Your task to perform on an android device: manage bookmarks in the chrome app Image 0: 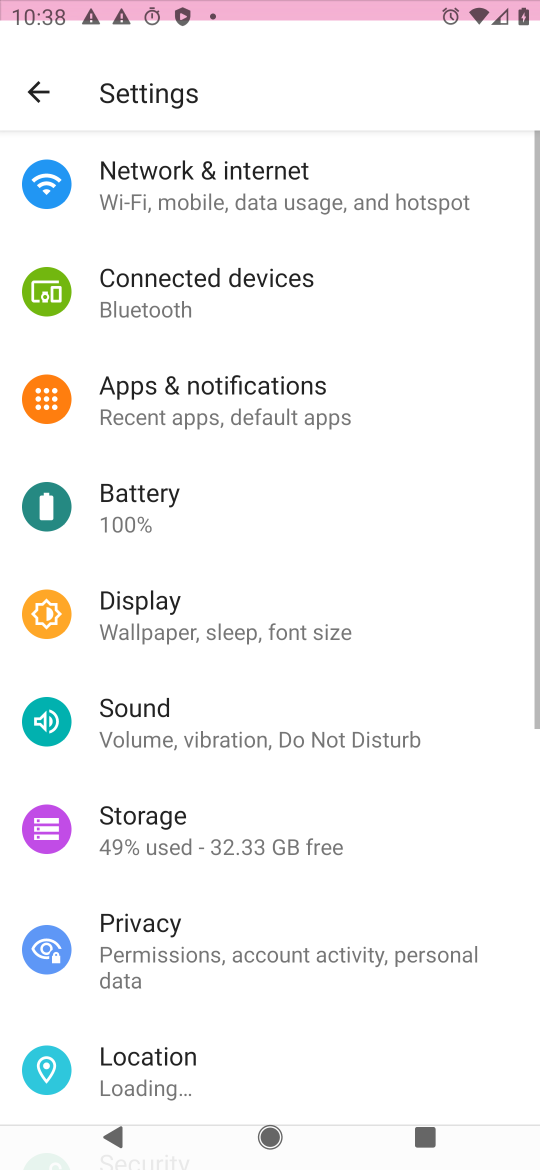
Step 0: click (269, 566)
Your task to perform on an android device: manage bookmarks in the chrome app Image 1: 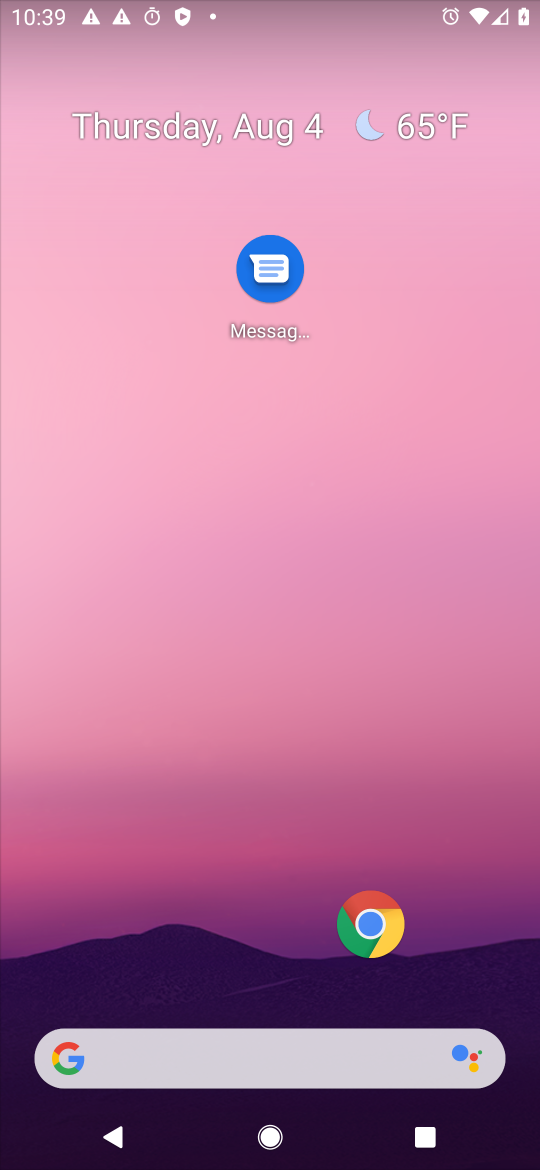
Step 1: drag from (361, 522) to (436, 202)
Your task to perform on an android device: manage bookmarks in the chrome app Image 2: 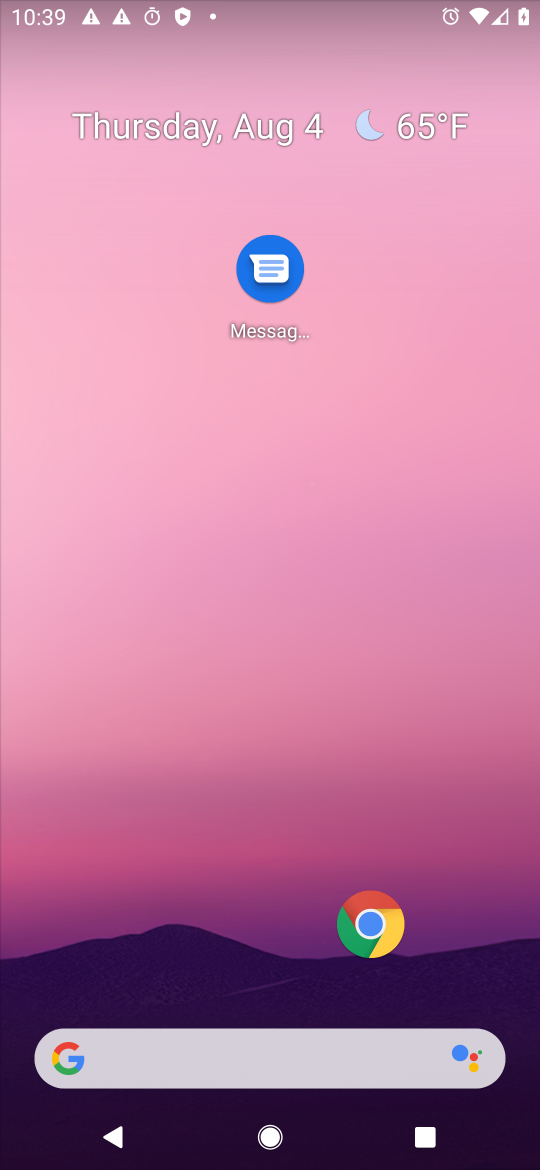
Step 2: drag from (219, 894) to (390, 85)
Your task to perform on an android device: manage bookmarks in the chrome app Image 3: 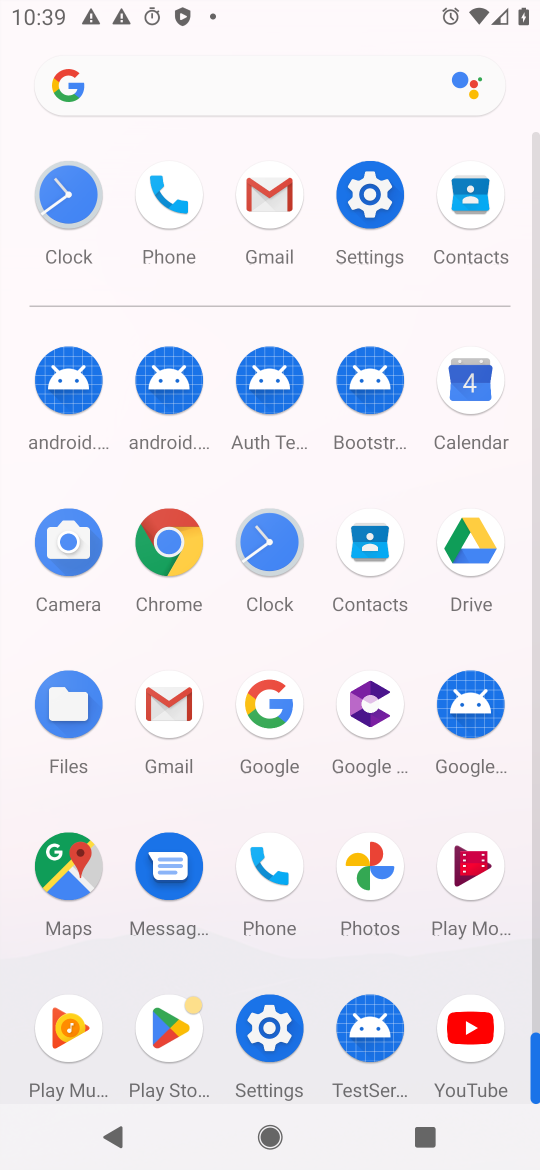
Step 3: click (150, 553)
Your task to perform on an android device: manage bookmarks in the chrome app Image 4: 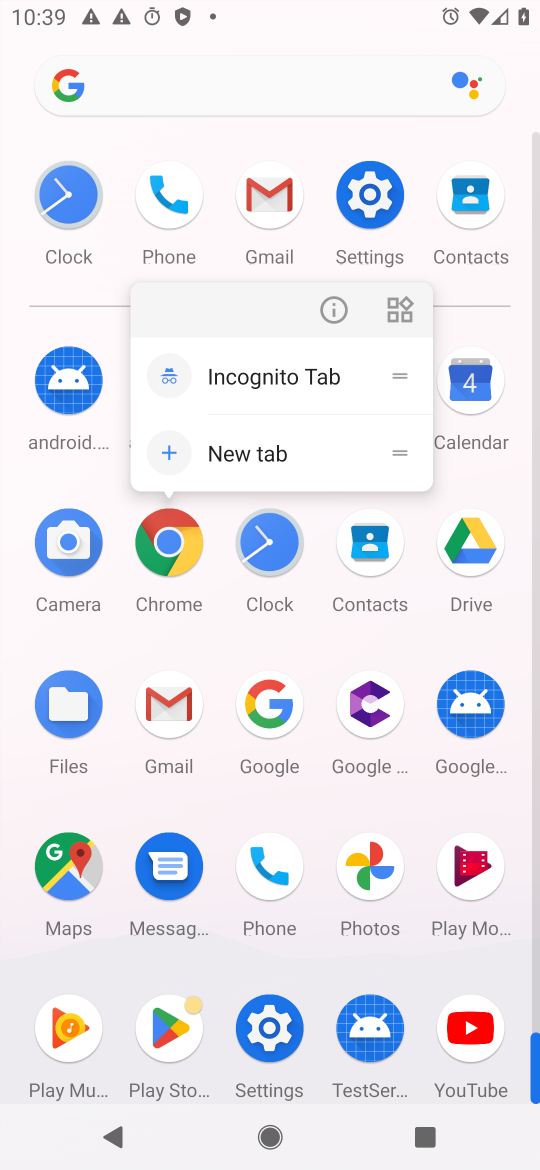
Step 4: click (334, 323)
Your task to perform on an android device: manage bookmarks in the chrome app Image 5: 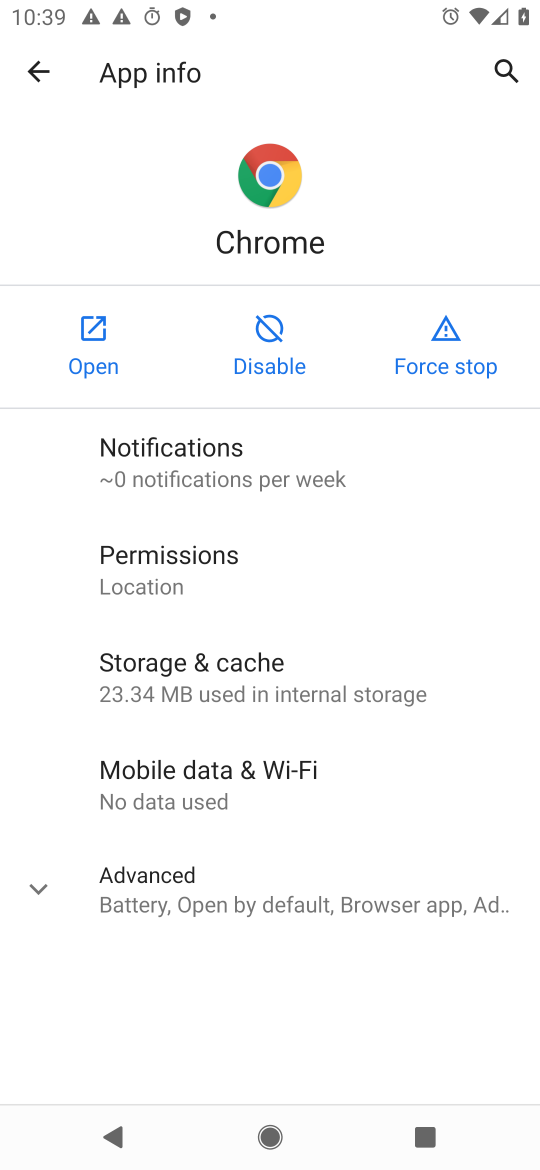
Step 5: click (106, 343)
Your task to perform on an android device: manage bookmarks in the chrome app Image 6: 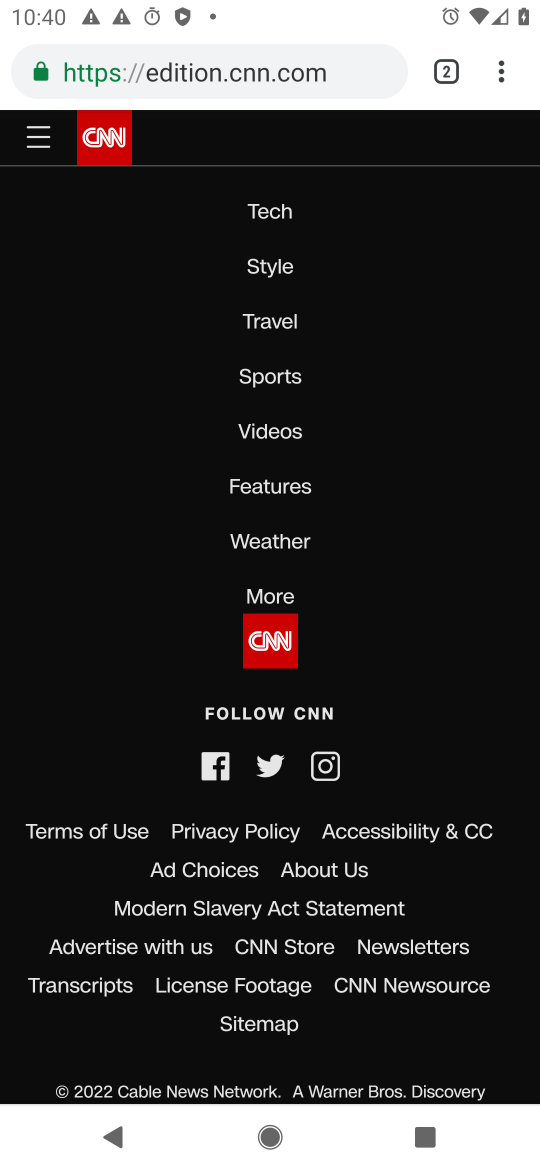
Step 6: drag from (499, 68) to (290, 277)
Your task to perform on an android device: manage bookmarks in the chrome app Image 7: 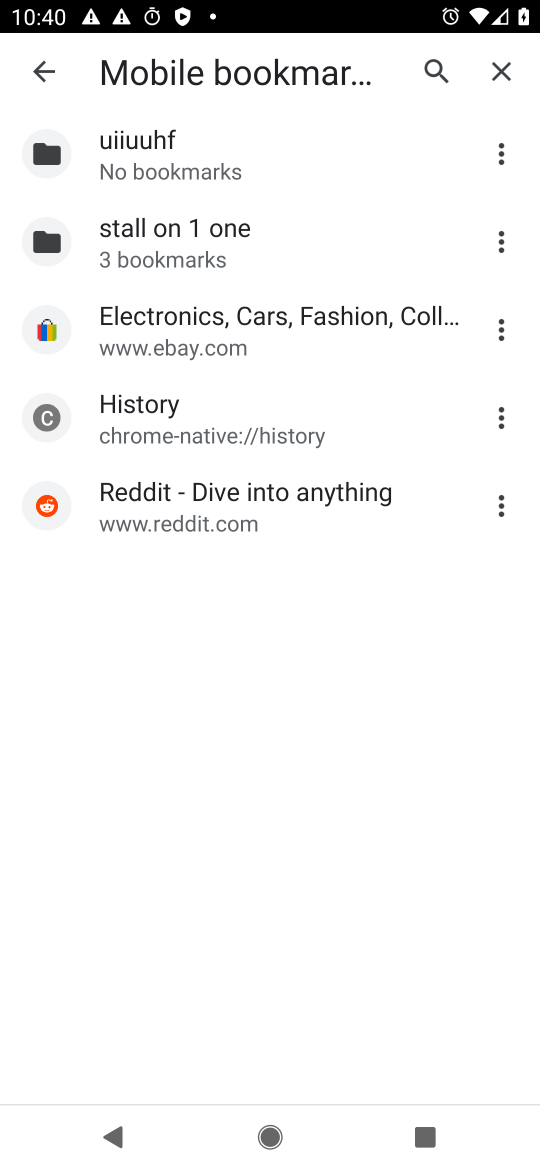
Step 7: drag from (283, 800) to (333, 480)
Your task to perform on an android device: manage bookmarks in the chrome app Image 8: 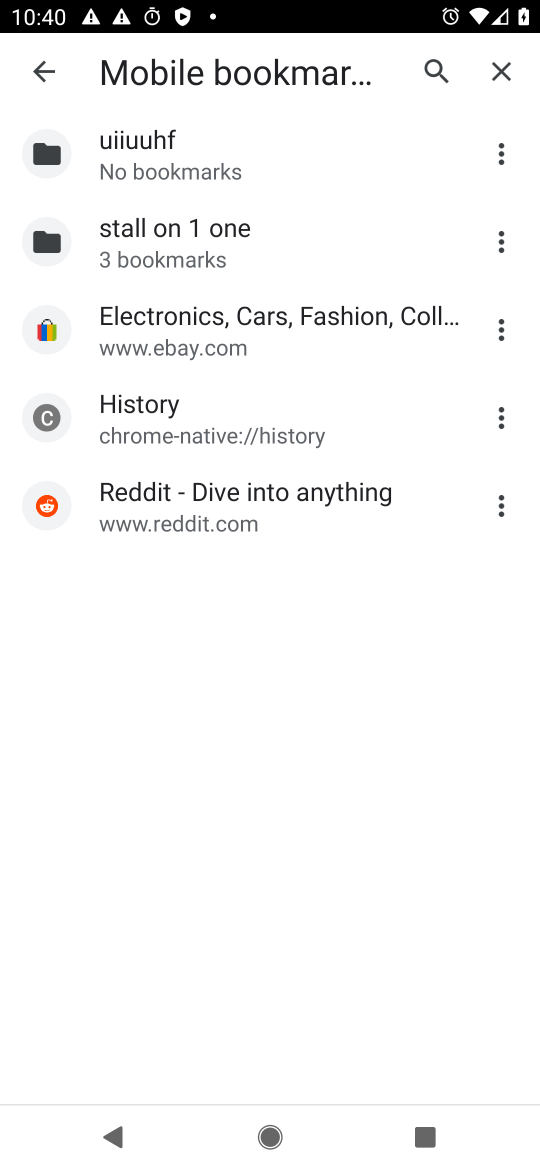
Step 8: drag from (341, 477) to (367, 300)
Your task to perform on an android device: manage bookmarks in the chrome app Image 9: 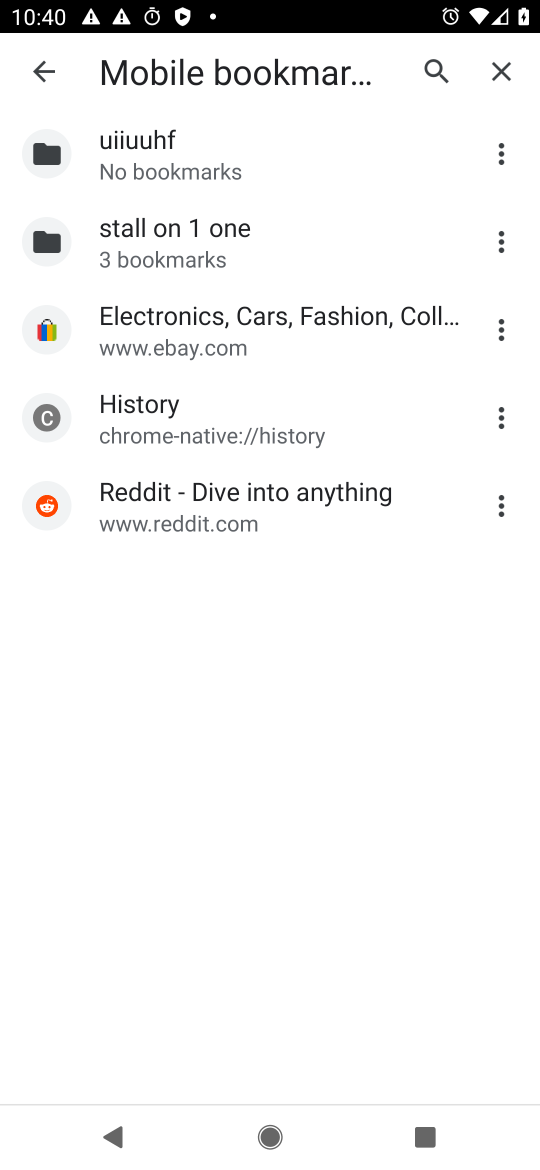
Step 9: drag from (198, 833) to (249, 461)
Your task to perform on an android device: manage bookmarks in the chrome app Image 10: 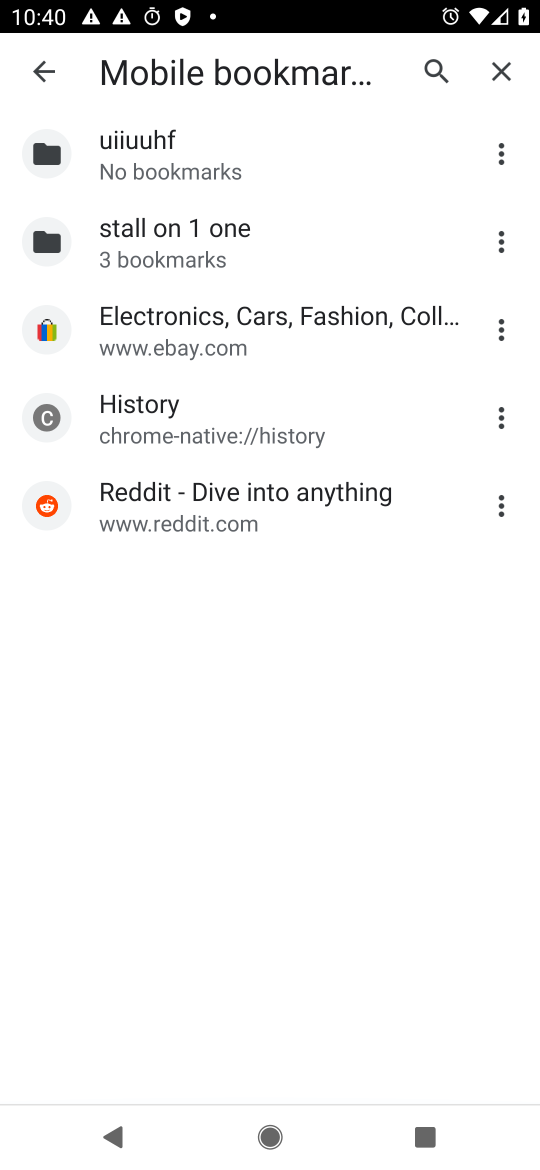
Step 10: drag from (242, 869) to (300, 384)
Your task to perform on an android device: manage bookmarks in the chrome app Image 11: 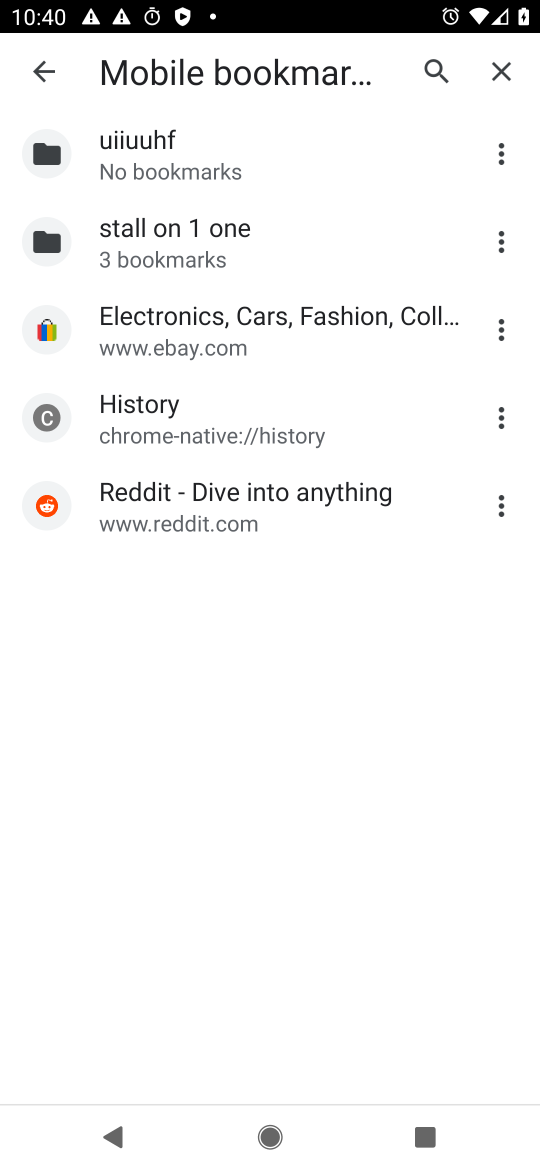
Step 11: click (295, 488)
Your task to perform on an android device: manage bookmarks in the chrome app Image 12: 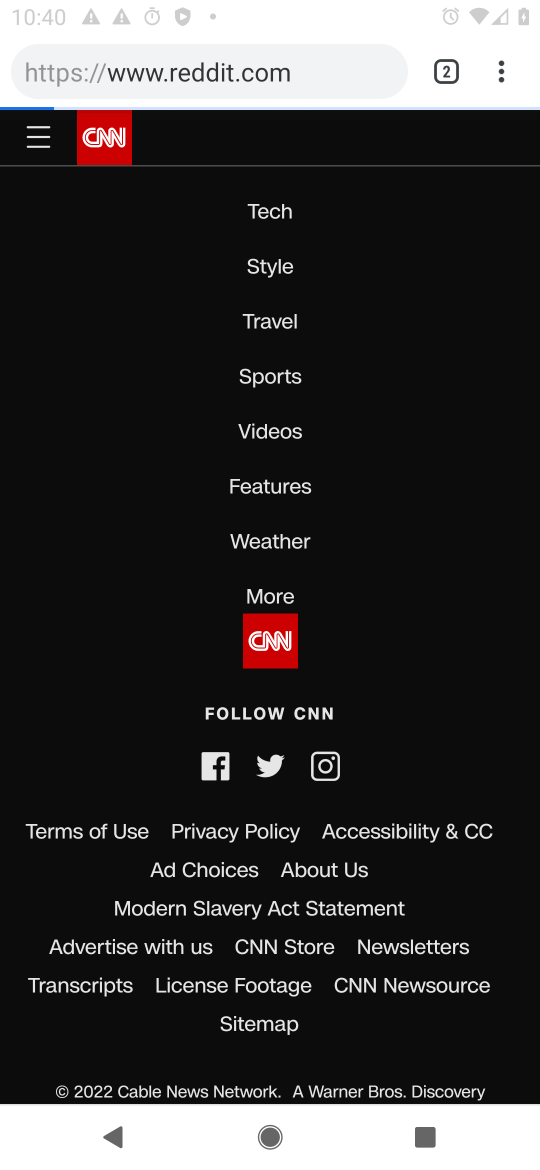
Step 12: drag from (223, 927) to (248, 543)
Your task to perform on an android device: manage bookmarks in the chrome app Image 13: 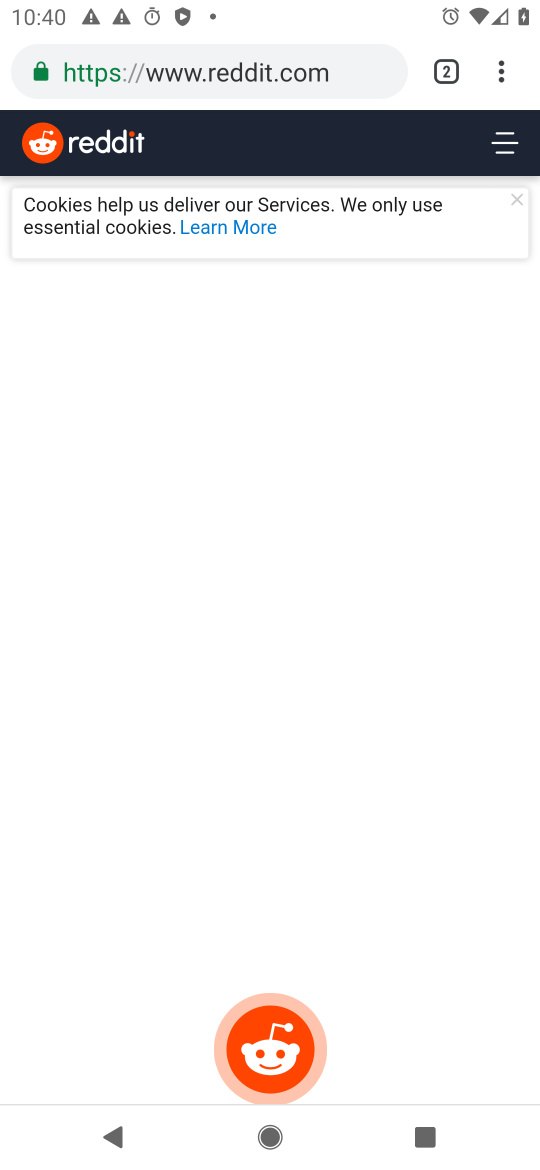
Step 13: drag from (499, 79) to (268, 275)
Your task to perform on an android device: manage bookmarks in the chrome app Image 14: 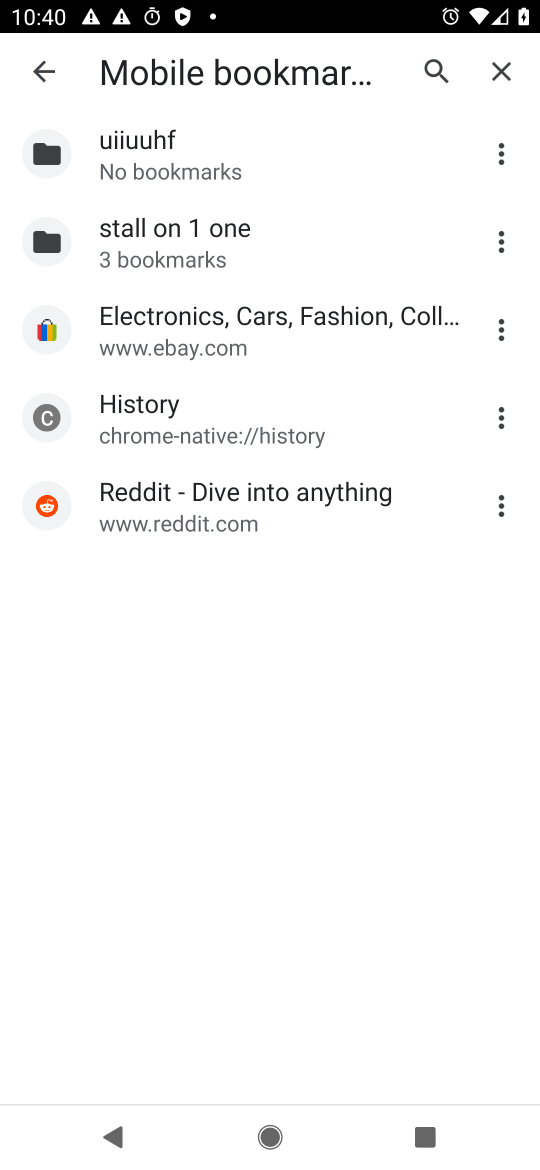
Step 14: click (294, 260)
Your task to perform on an android device: manage bookmarks in the chrome app Image 15: 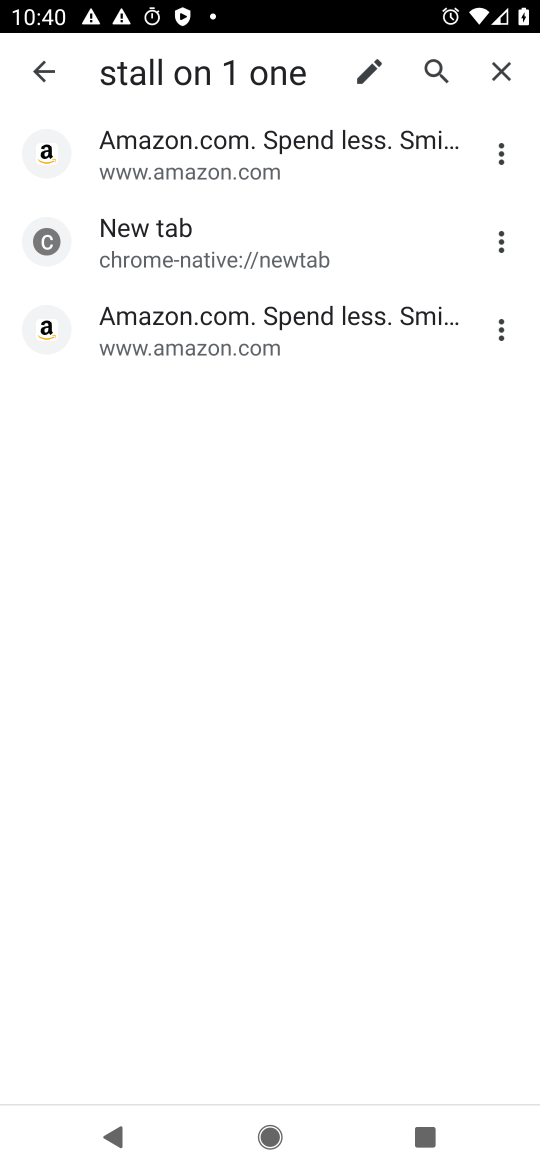
Step 15: drag from (215, 581) to (277, 1143)
Your task to perform on an android device: manage bookmarks in the chrome app Image 16: 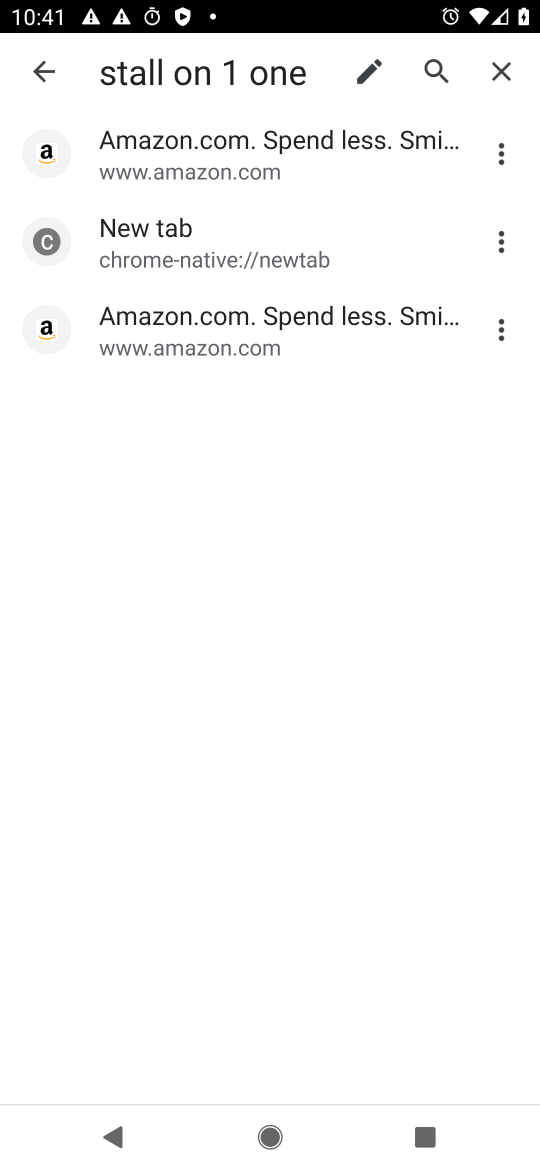
Step 16: click (178, 320)
Your task to perform on an android device: manage bookmarks in the chrome app Image 17: 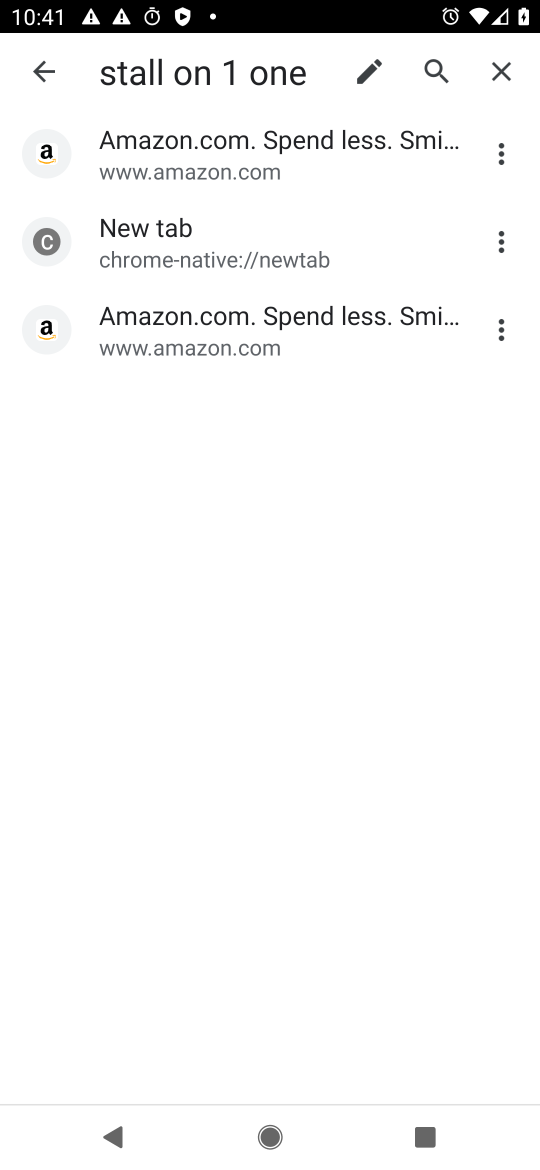
Step 17: task complete